Your task to perform on an android device: Check the weather Image 0: 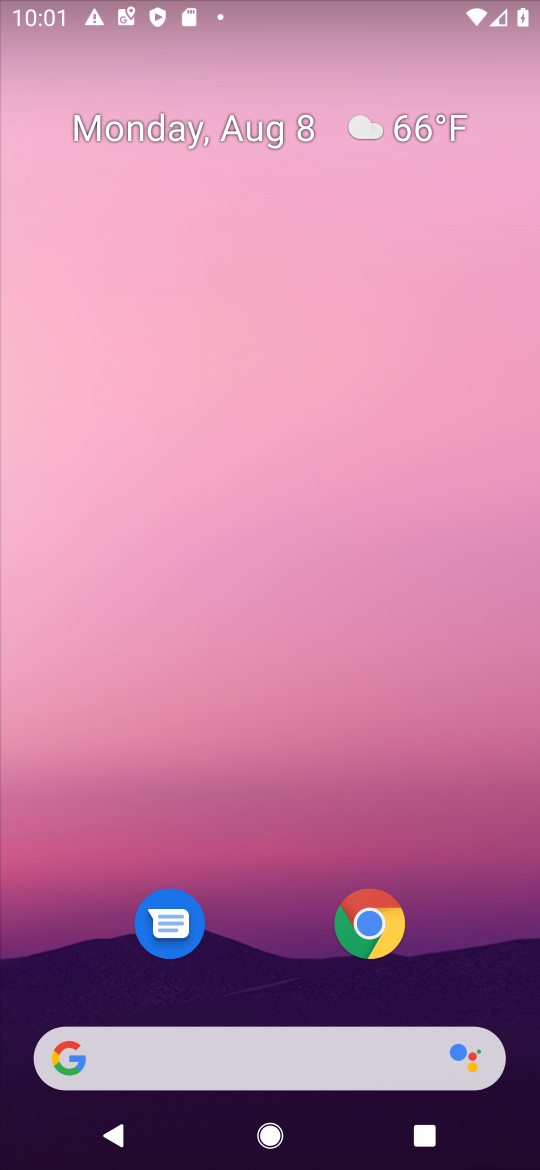
Step 0: drag from (180, 573) to (316, 195)
Your task to perform on an android device: Check the weather Image 1: 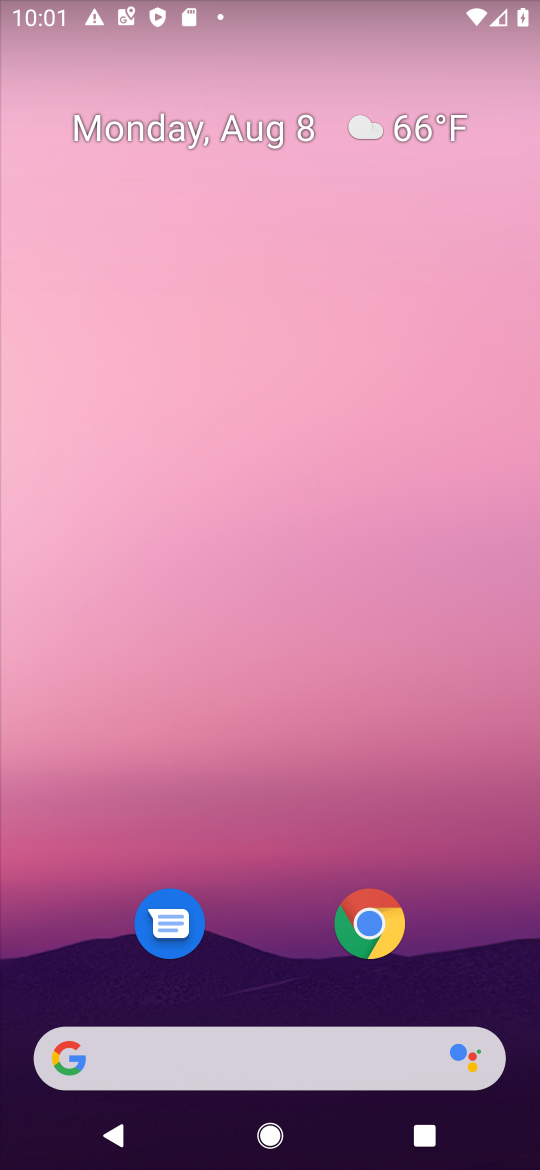
Step 1: drag from (34, 1120) to (327, 225)
Your task to perform on an android device: Check the weather Image 2: 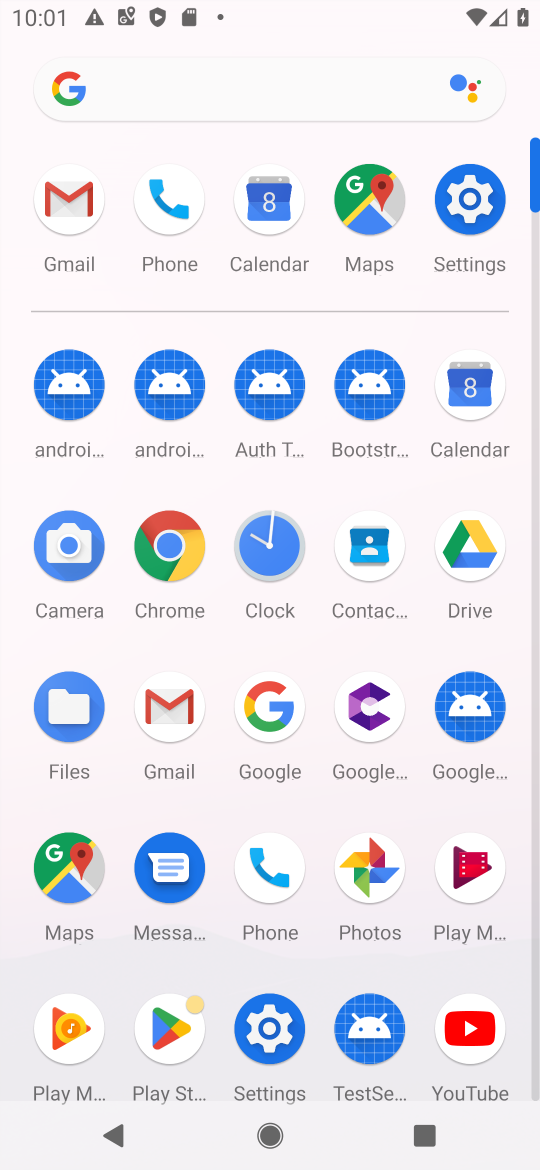
Step 2: click (141, 95)
Your task to perform on an android device: Check the weather Image 3: 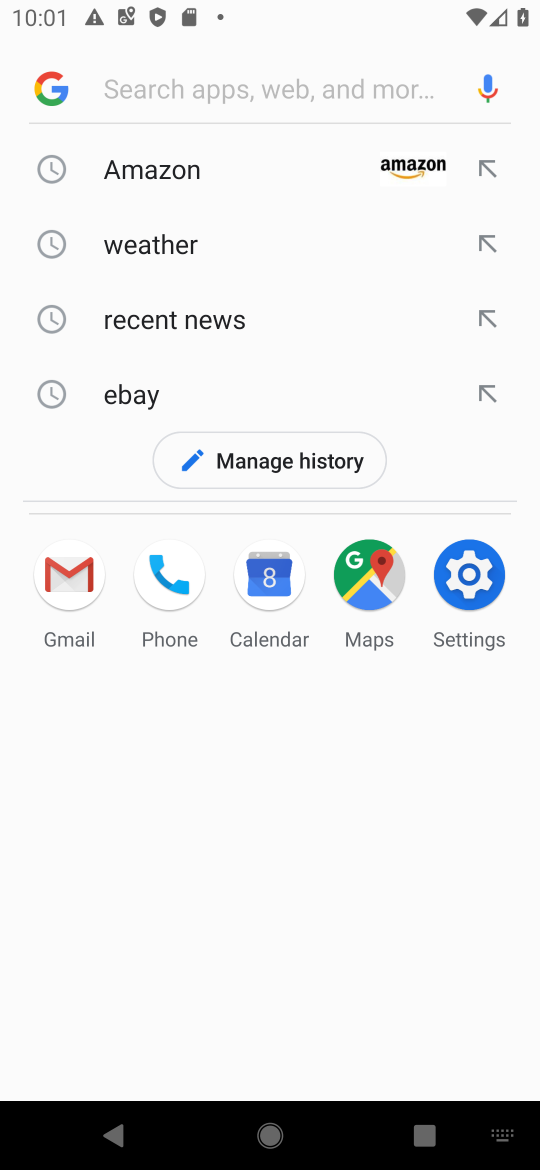
Step 3: type "Check the weather"
Your task to perform on an android device: Check the weather Image 4: 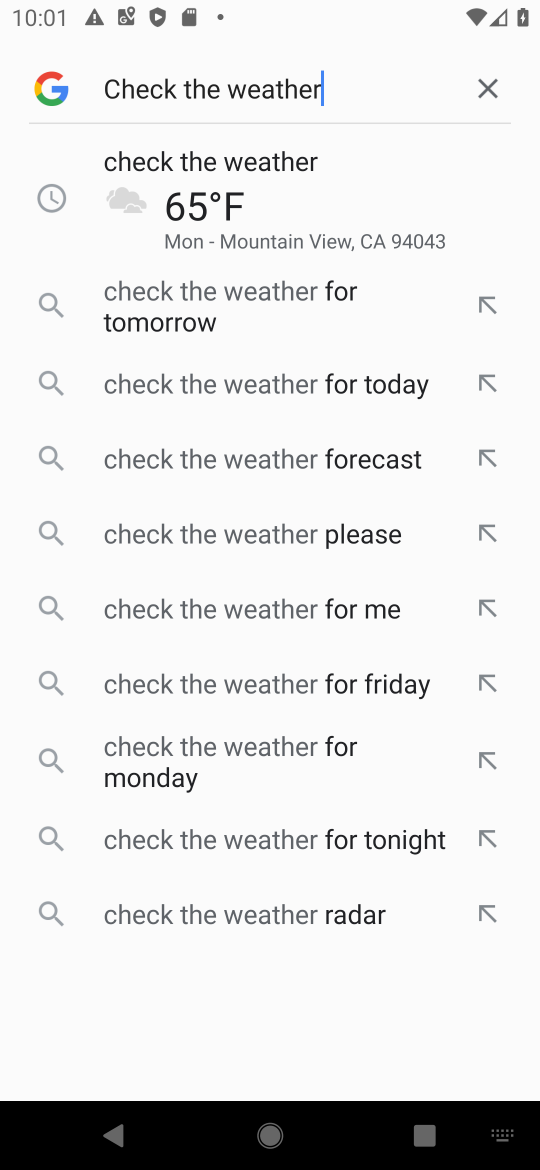
Step 4: task complete